Your task to perform on an android device: Go to privacy settings Image 0: 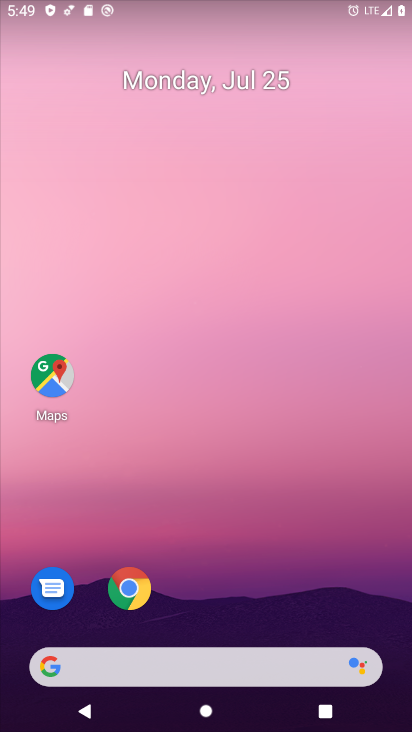
Step 0: click (235, 207)
Your task to perform on an android device: Go to privacy settings Image 1: 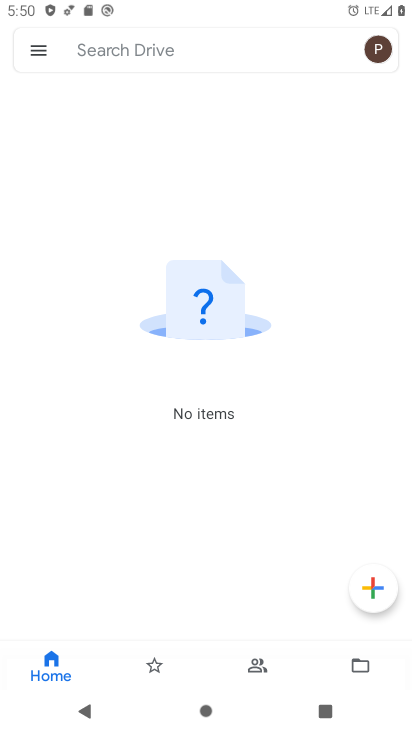
Step 1: press home button
Your task to perform on an android device: Go to privacy settings Image 2: 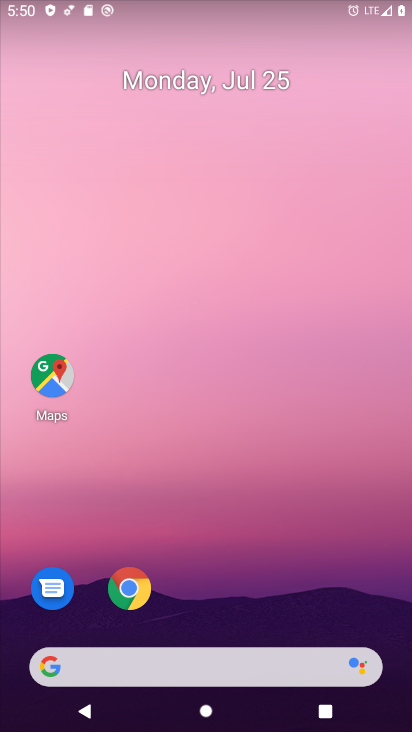
Step 2: drag from (184, 670) to (239, 100)
Your task to perform on an android device: Go to privacy settings Image 3: 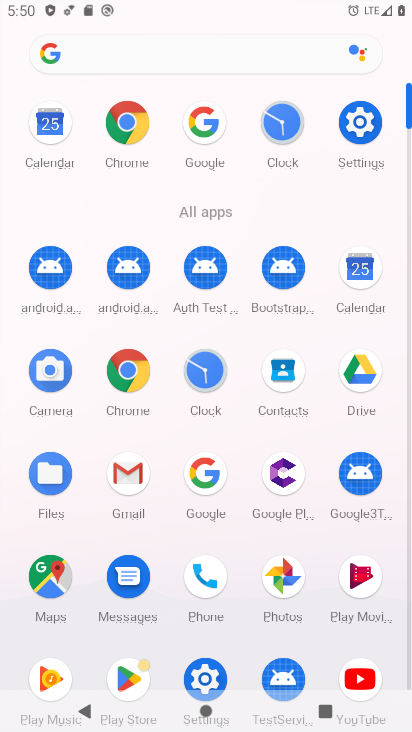
Step 3: click (357, 123)
Your task to perform on an android device: Go to privacy settings Image 4: 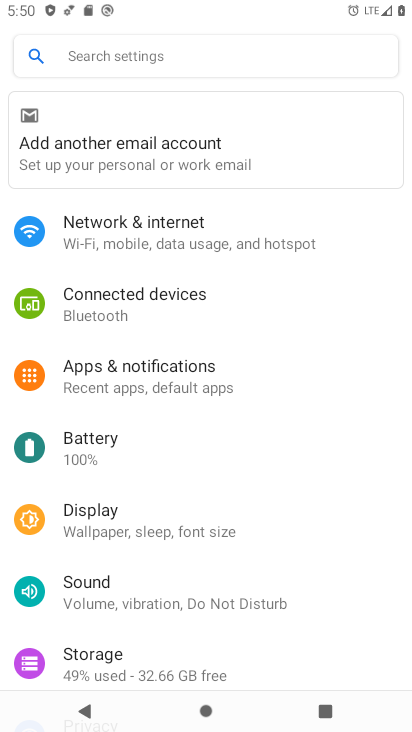
Step 4: drag from (140, 563) to (178, 417)
Your task to perform on an android device: Go to privacy settings Image 5: 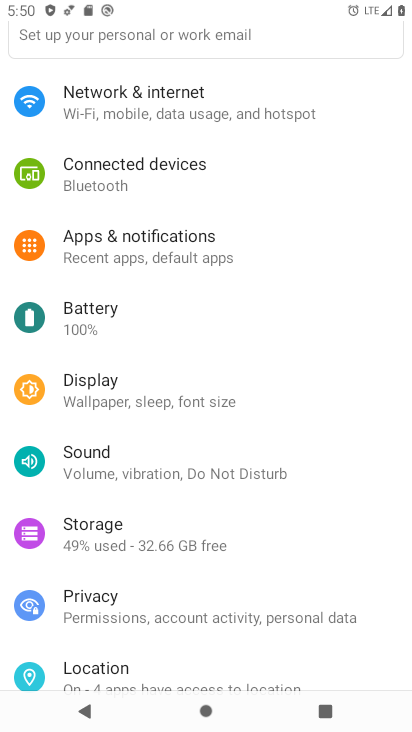
Step 5: drag from (144, 496) to (177, 390)
Your task to perform on an android device: Go to privacy settings Image 6: 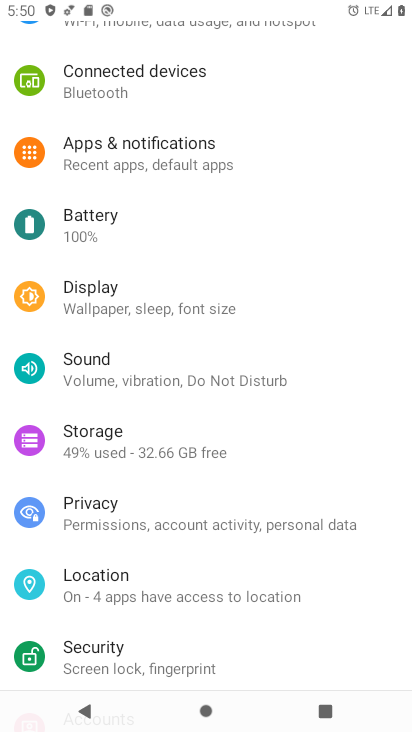
Step 6: click (180, 531)
Your task to perform on an android device: Go to privacy settings Image 7: 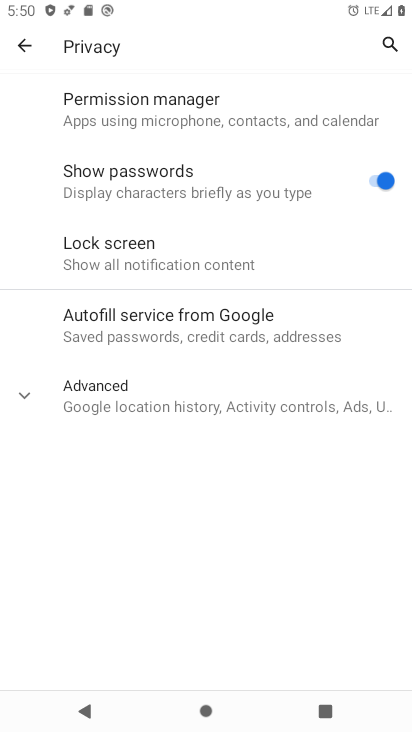
Step 7: task complete